Your task to perform on an android device: toggle wifi Image 0: 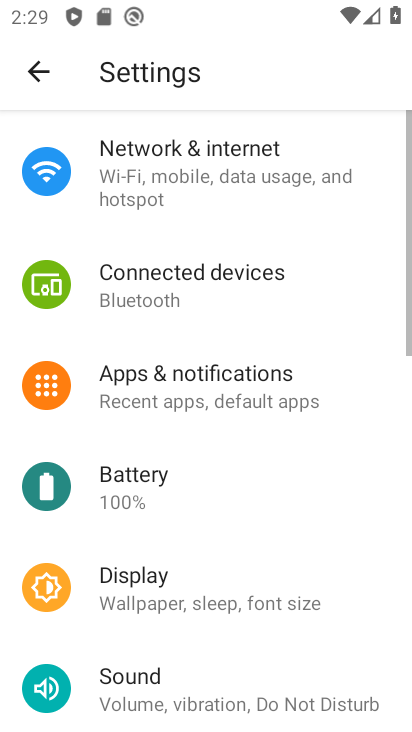
Step 0: click (266, 150)
Your task to perform on an android device: toggle wifi Image 1: 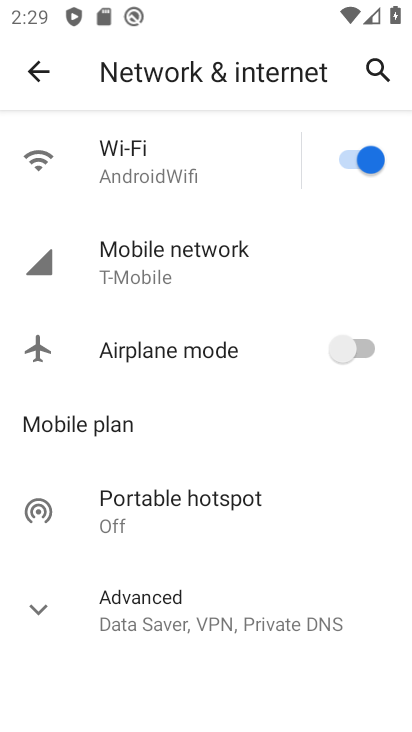
Step 1: click (356, 162)
Your task to perform on an android device: toggle wifi Image 2: 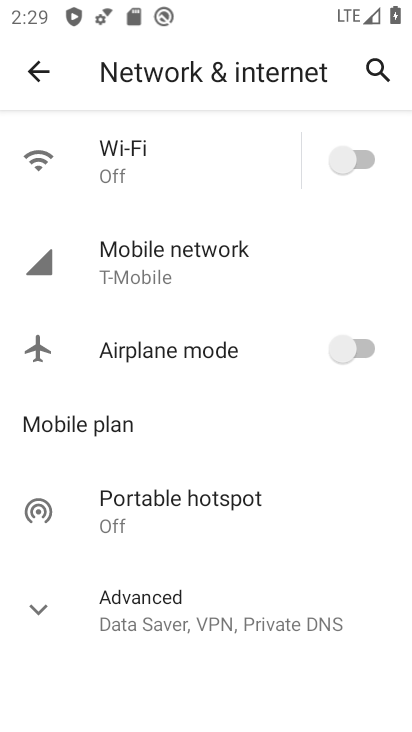
Step 2: task complete